Your task to perform on an android device: Go to eBay Image 0: 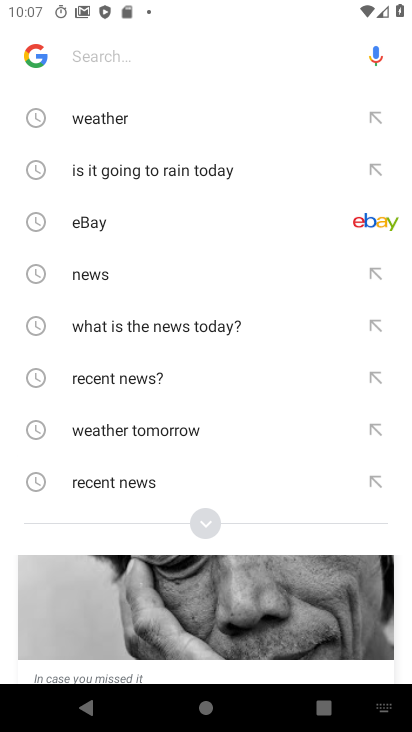
Step 0: click (96, 219)
Your task to perform on an android device: Go to eBay Image 1: 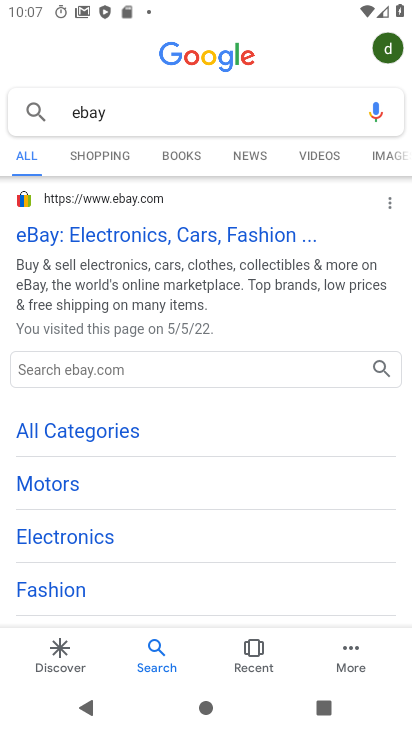
Step 1: task complete